Your task to perform on an android device: turn on improve location accuracy Image 0: 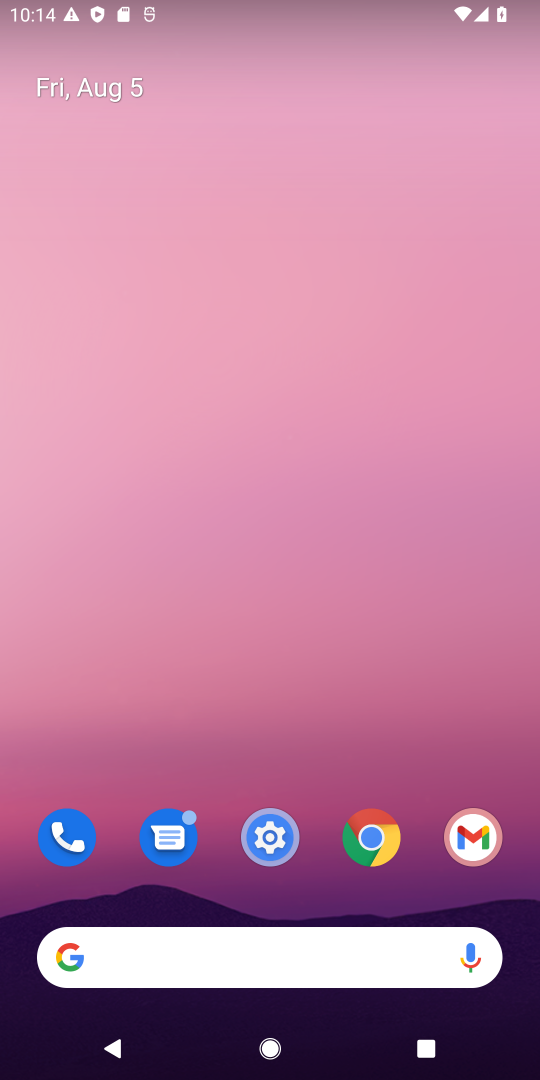
Step 0: drag from (296, 724) to (295, 6)
Your task to perform on an android device: turn on improve location accuracy Image 1: 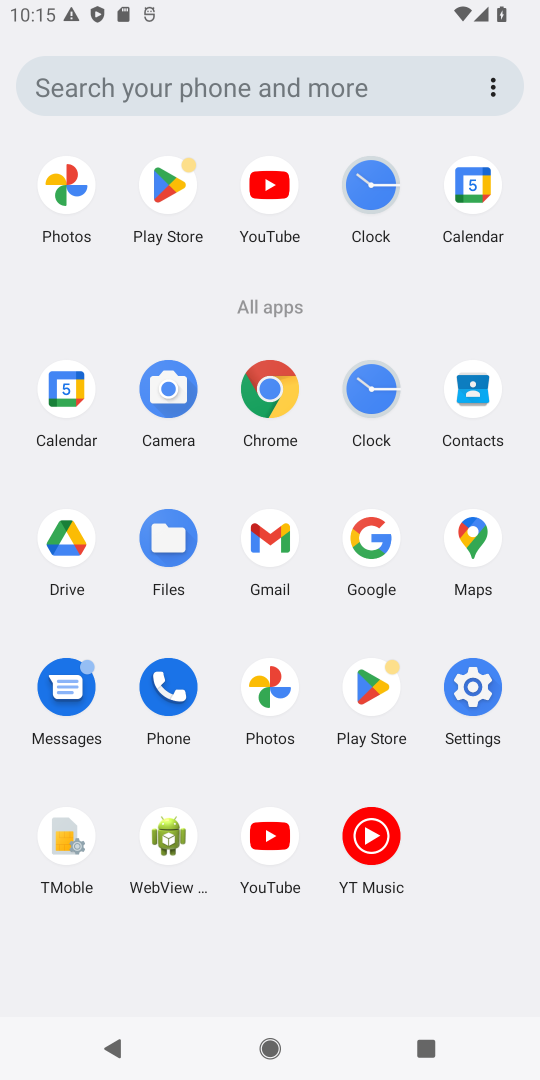
Step 1: click (479, 695)
Your task to perform on an android device: turn on improve location accuracy Image 2: 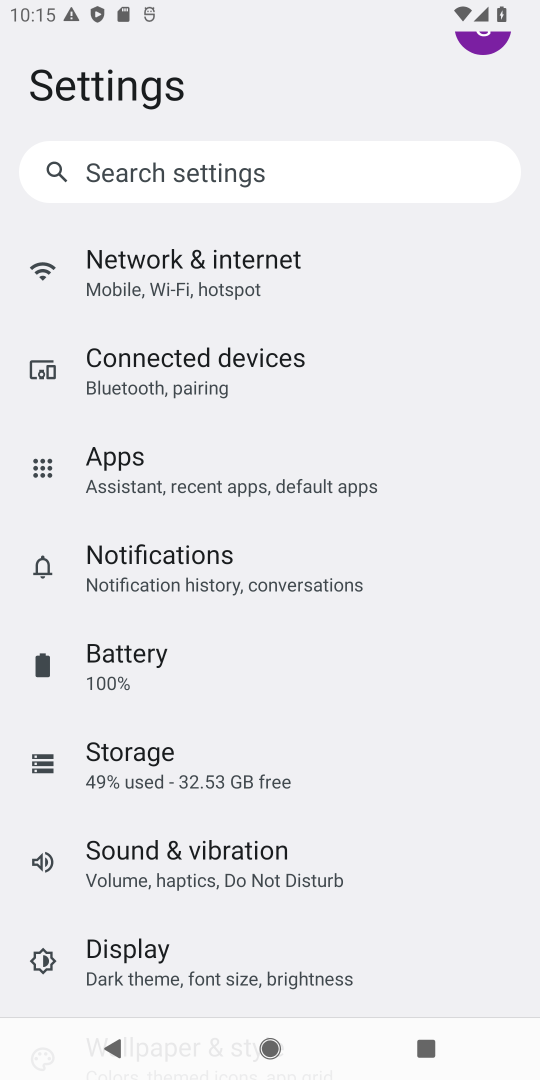
Step 2: drag from (234, 741) to (264, 102)
Your task to perform on an android device: turn on improve location accuracy Image 3: 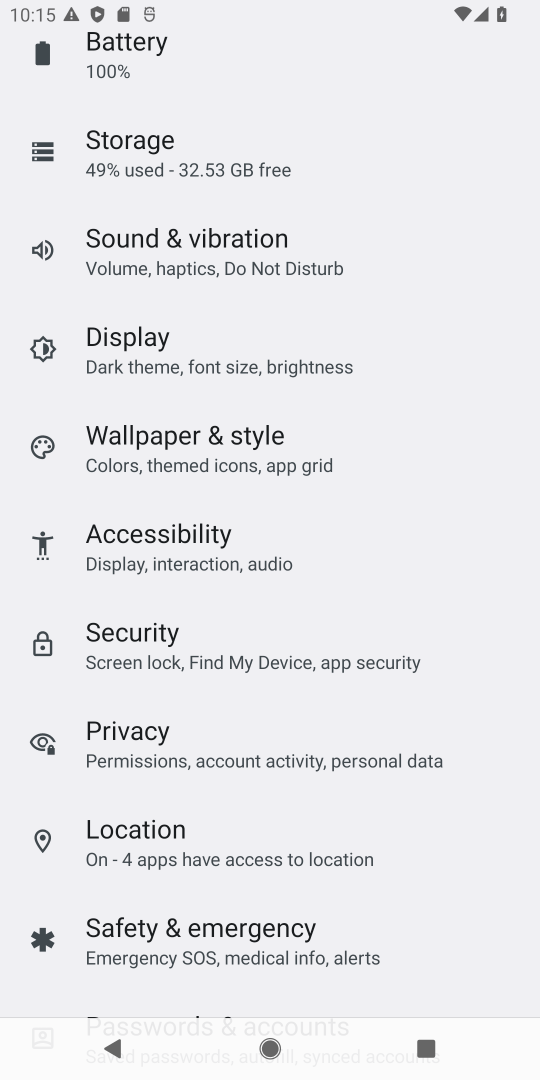
Step 3: click (222, 850)
Your task to perform on an android device: turn on improve location accuracy Image 4: 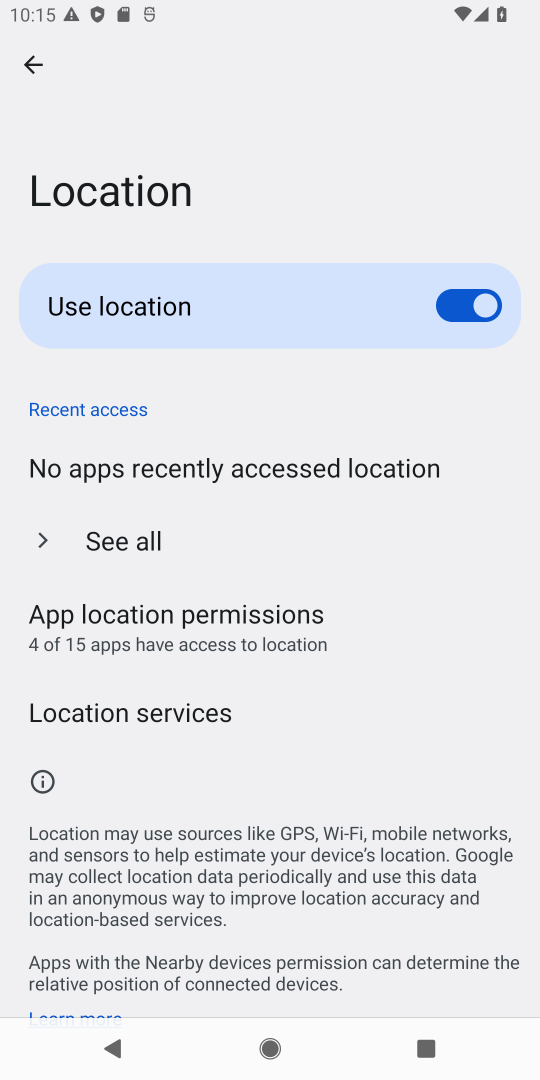
Step 4: click (227, 703)
Your task to perform on an android device: turn on improve location accuracy Image 5: 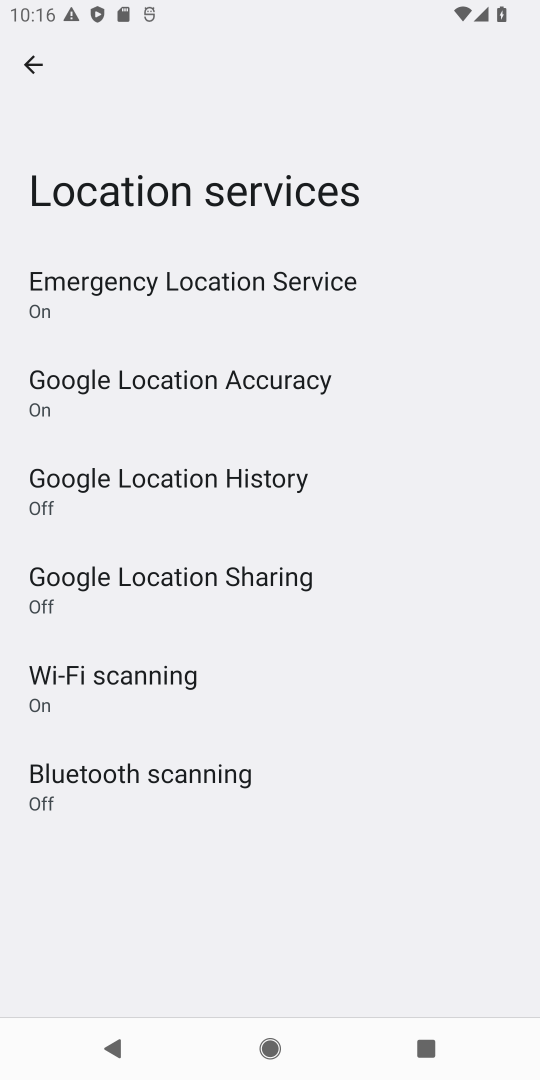
Step 5: task complete